Your task to perform on an android device: toggle show notifications on the lock screen Image 0: 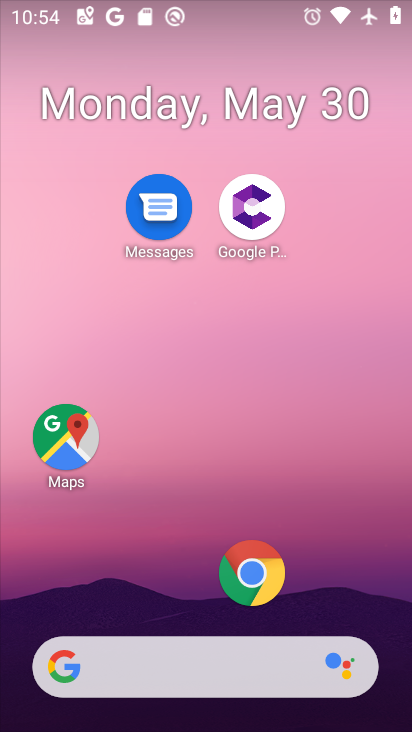
Step 0: drag from (197, 600) to (235, 99)
Your task to perform on an android device: toggle show notifications on the lock screen Image 1: 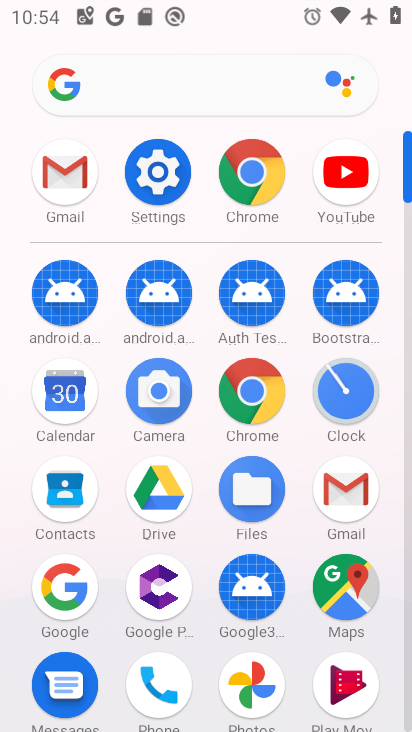
Step 1: click (179, 167)
Your task to perform on an android device: toggle show notifications on the lock screen Image 2: 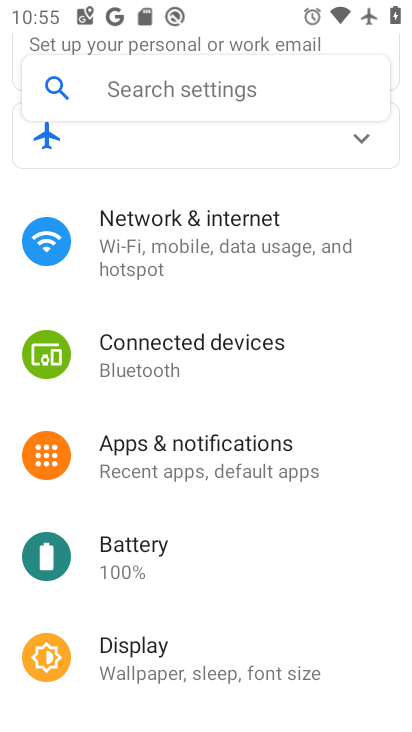
Step 2: click (258, 469)
Your task to perform on an android device: toggle show notifications on the lock screen Image 3: 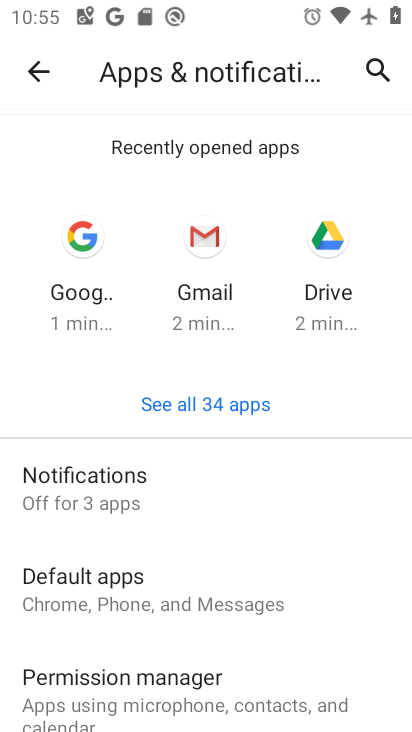
Step 3: drag from (216, 610) to (217, 475)
Your task to perform on an android device: toggle show notifications on the lock screen Image 4: 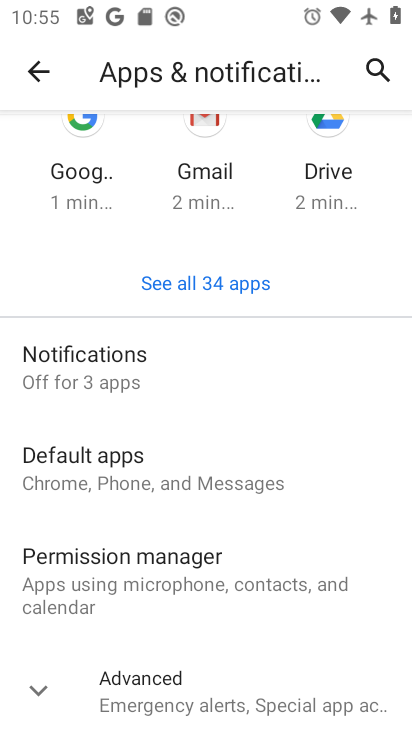
Step 4: click (199, 391)
Your task to perform on an android device: toggle show notifications on the lock screen Image 5: 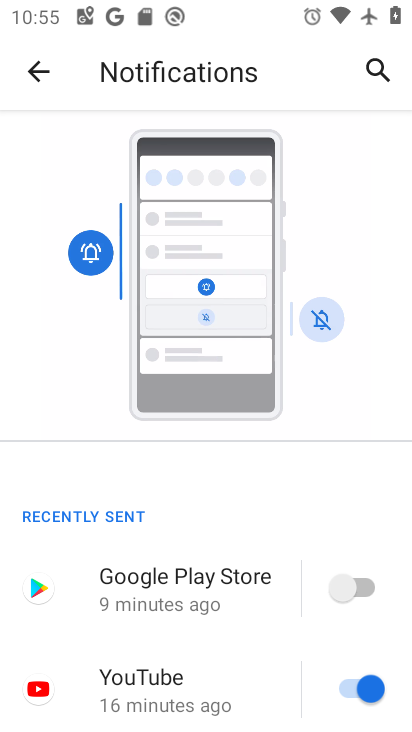
Step 5: drag from (131, 637) to (168, 163)
Your task to perform on an android device: toggle show notifications on the lock screen Image 6: 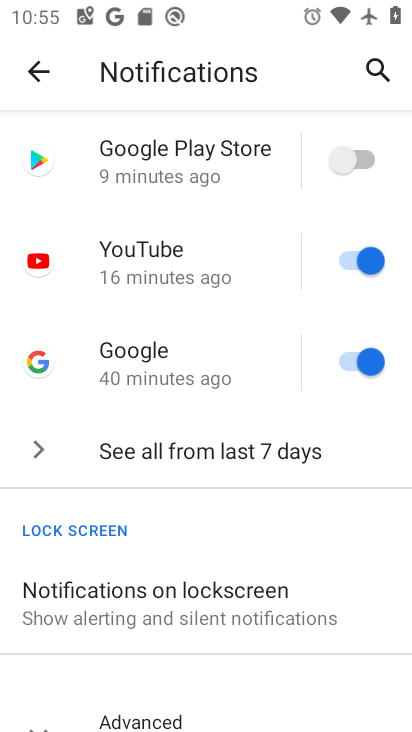
Step 6: click (168, 627)
Your task to perform on an android device: toggle show notifications on the lock screen Image 7: 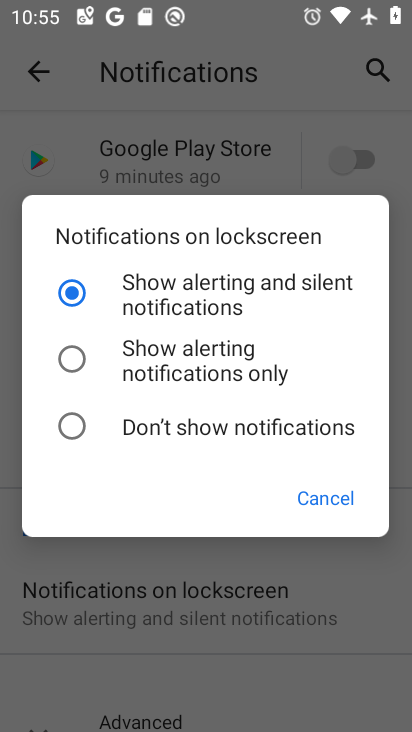
Step 7: task complete